Your task to perform on an android device: set the stopwatch Image 0: 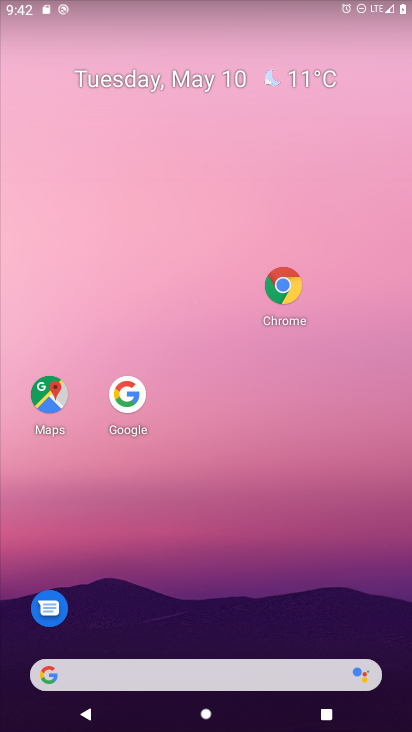
Step 0: drag from (139, 674) to (345, 72)
Your task to perform on an android device: set the stopwatch Image 1: 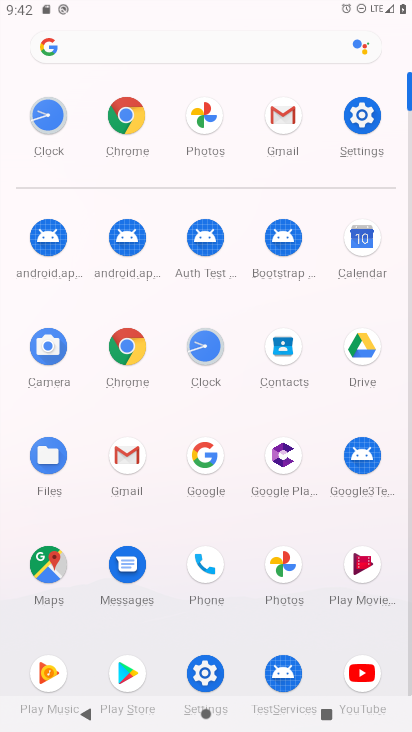
Step 1: click (211, 357)
Your task to perform on an android device: set the stopwatch Image 2: 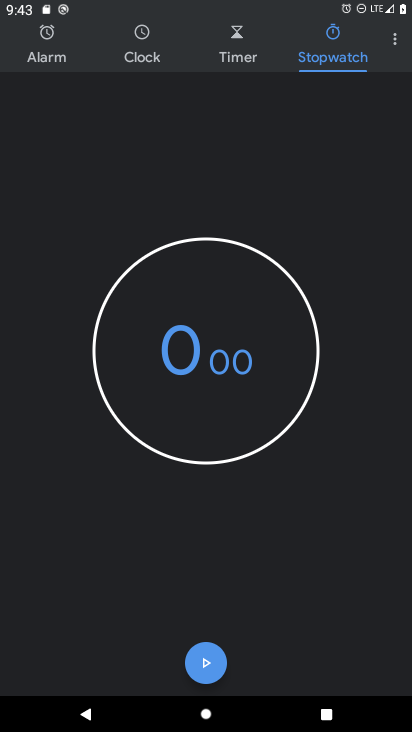
Step 2: click (212, 364)
Your task to perform on an android device: set the stopwatch Image 3: 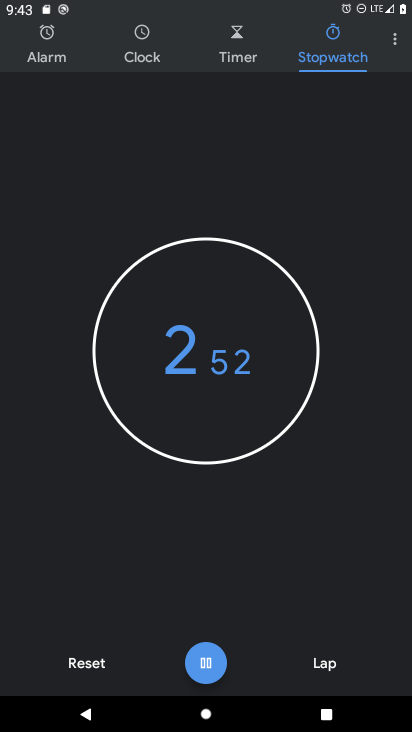
Step 3: click (212, 364)
Your task to perform on an android device: set the stopwatch Image 4: 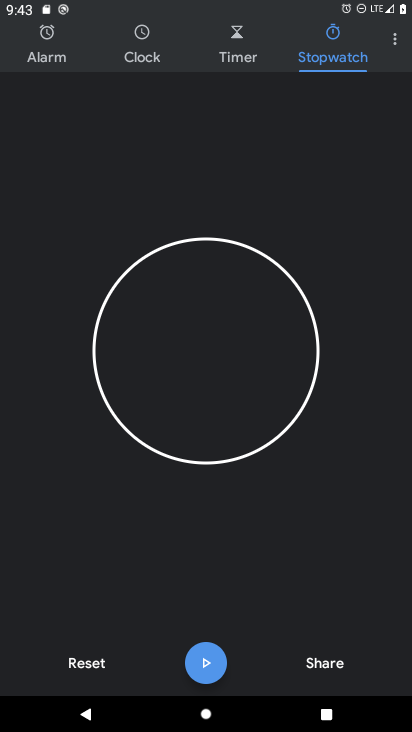
Step 4: task complete